Your task to perform on an android device: turn off wifi Image 0: 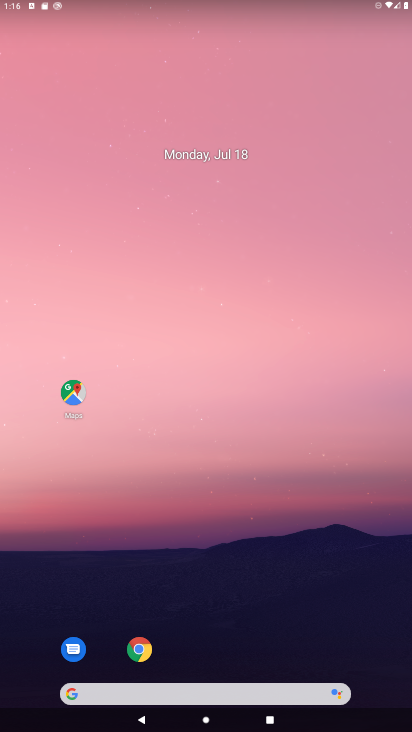
Step 0: drag from (377, 648) to (335, 146)
Your task to perform on an android device: turn off wifi Image 1: 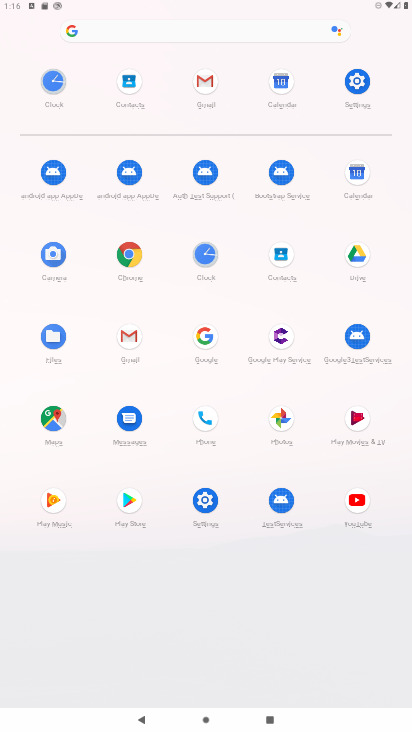
Step 1: click (206, 502)
Your task to perform on an android device: turn off wifi Image 2: 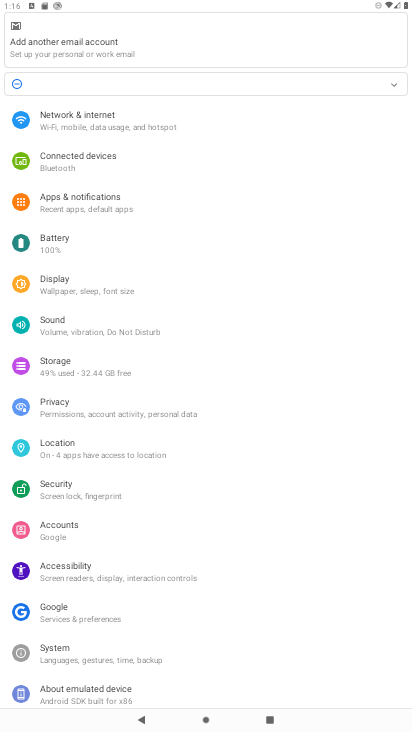
Step 2: click (70, 121)
Your task to perform on an android device: turn off wifi Image 3: 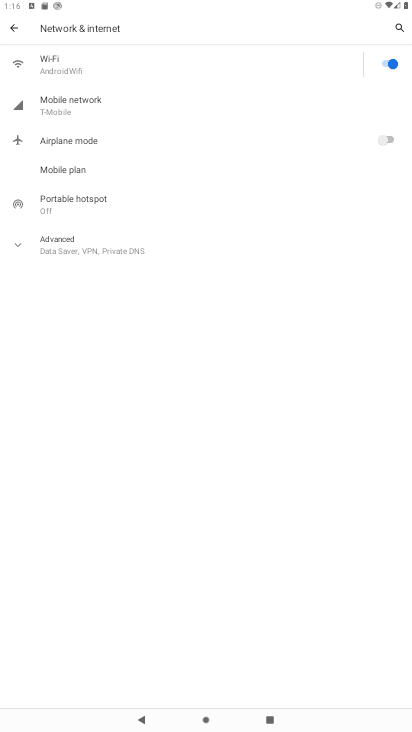
Step 3: click (381, 61)
Your task to perform on an android device: turn off wifi Image 4: 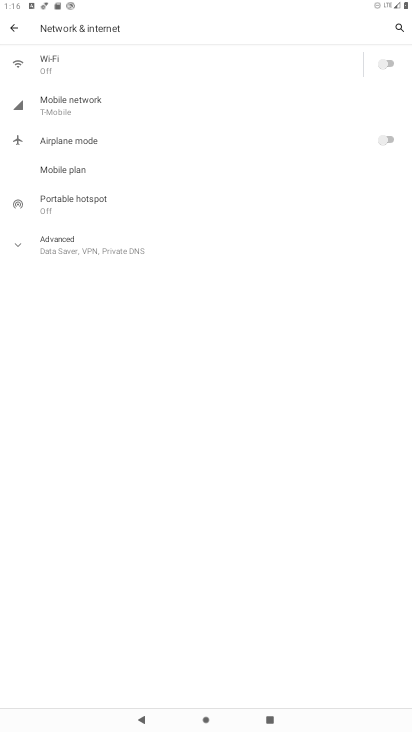
Step 4: task complete